Your task to perform on an android device: check out phone information Image 0: 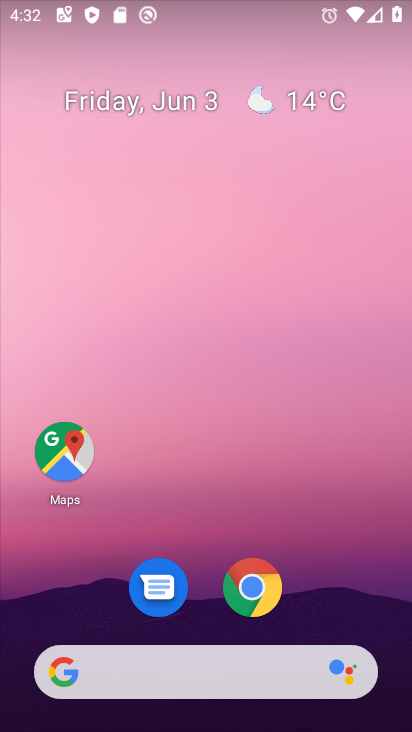
Step 0: drag from (197, 471) to (169, 269)
Your task to perform on an android device: check out phone information Image 1: 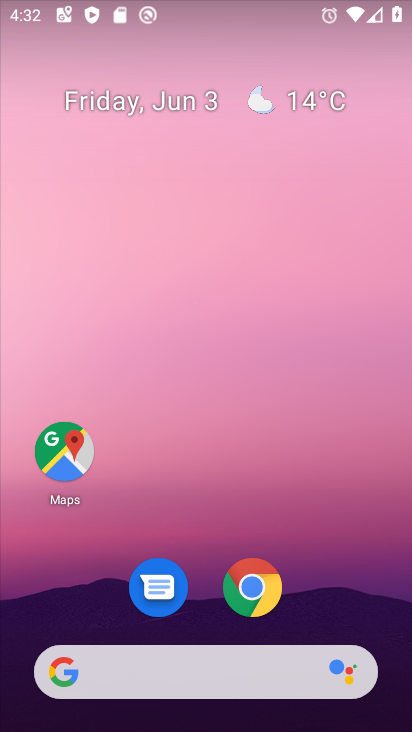
Step 1: drag from (155, 626) to (141, 225)
Your task to perform on an android device: check out phone information Image 2: 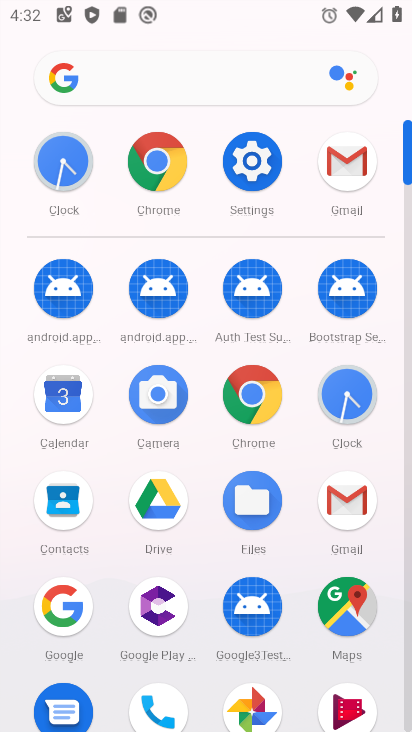
Step 2: click (156, 717)
Your task to perform on an android device: check out phone information Image 3: 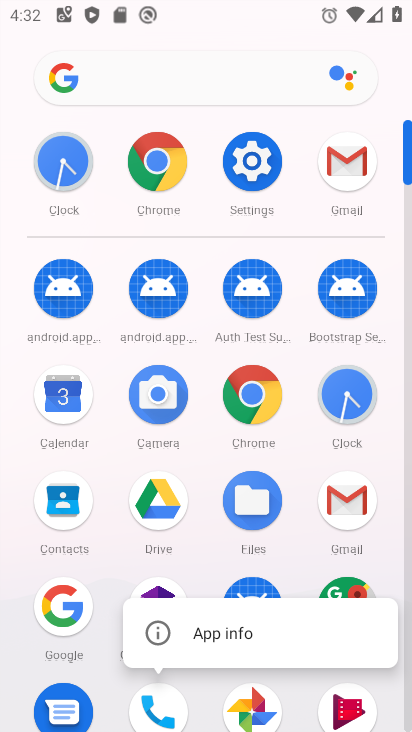
Step 3: click (171, 628)
Your task to perform on an android device: check out phone information Image 4: 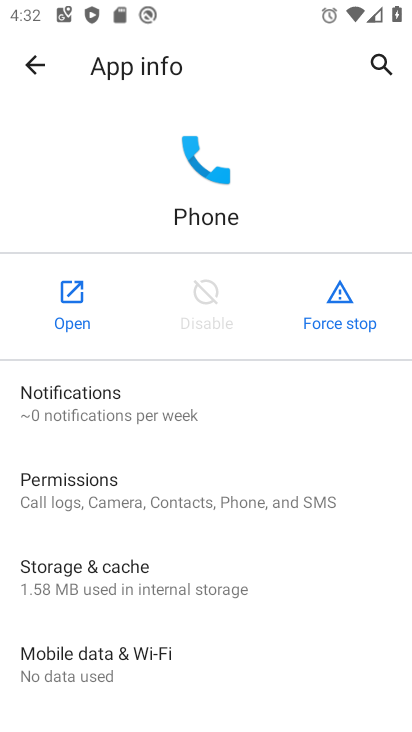
Step 4: drag from (180, 682) to (164, 303)
Your task to perform on an android device: check out phone information Image 5: 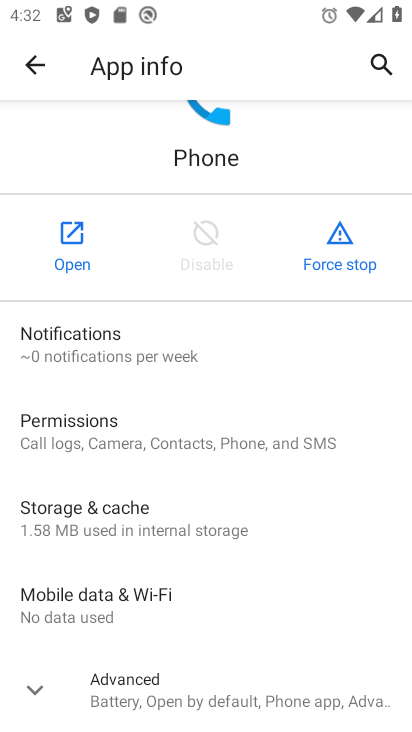
Step 5: click (173, 703)
Your task to perform on an android device: check out phone information Image 6: 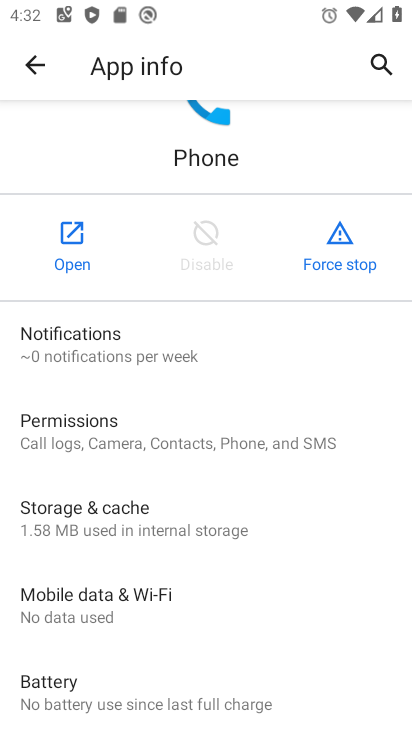
Step 6: task complete